Your task to perform on an android device: Search for lenovo thinkpad on target.com, select the first entry, add it to the cart, then select checkout. Image 0: 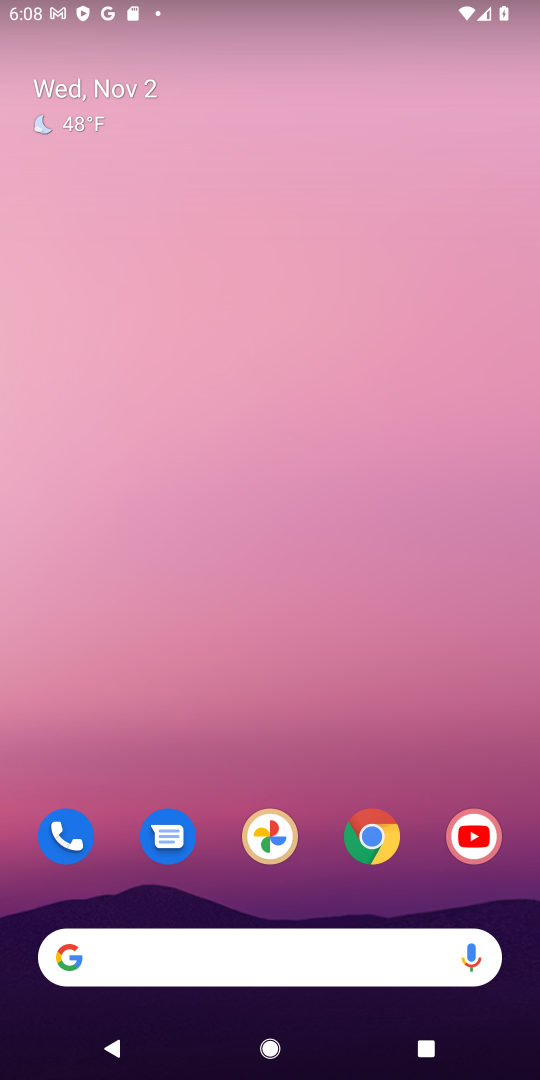
Step 0: drag from (295, 901) to (346, 307)
Your task to perform on an android device: Search for lenovo thinkpad on target.com, select the first entry, add it to the cart, then select checkout. Image 1: 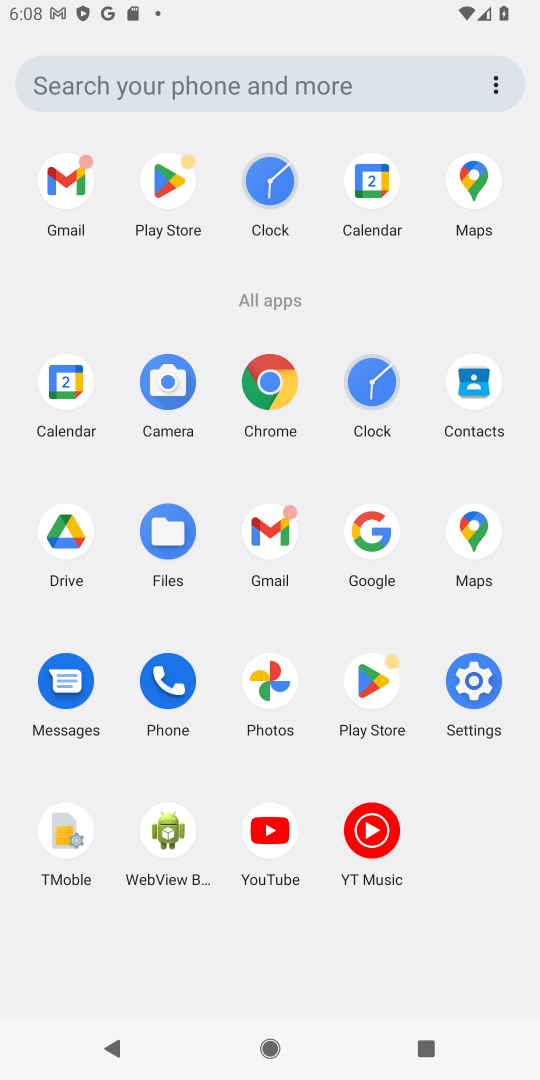
Step 1: click (372, 537)
Your task to perform on an android device: Search for lenovo thinkpad on target.com, select the first entry, add it to the cart, then select checkout. Image 2: 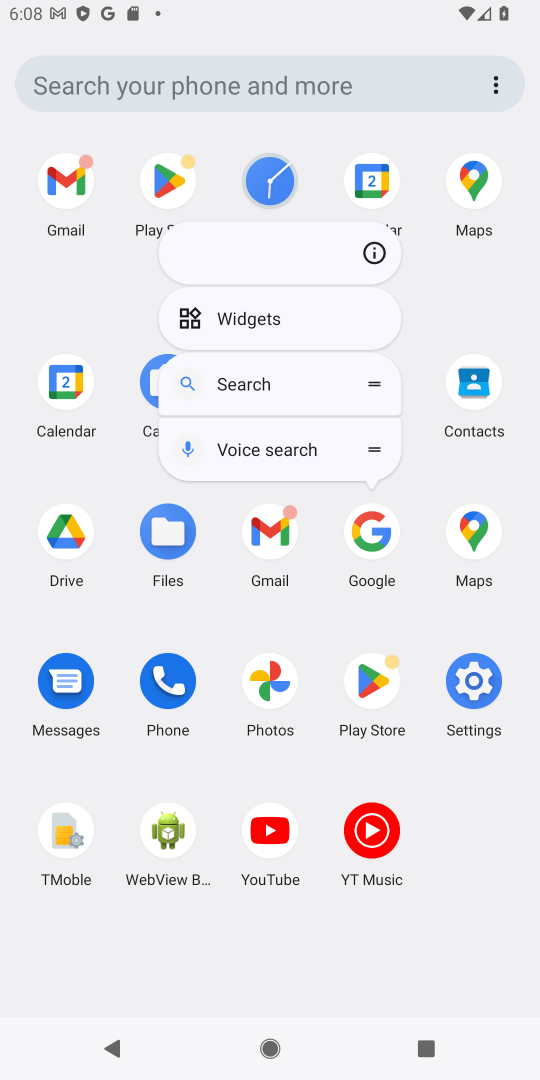
Step 2: click (353, 530)
Your task to perform on an android device: Search for lenovo thinkpad on target.com, select the first entry, add it to the cart, then select checkout. Image 3: 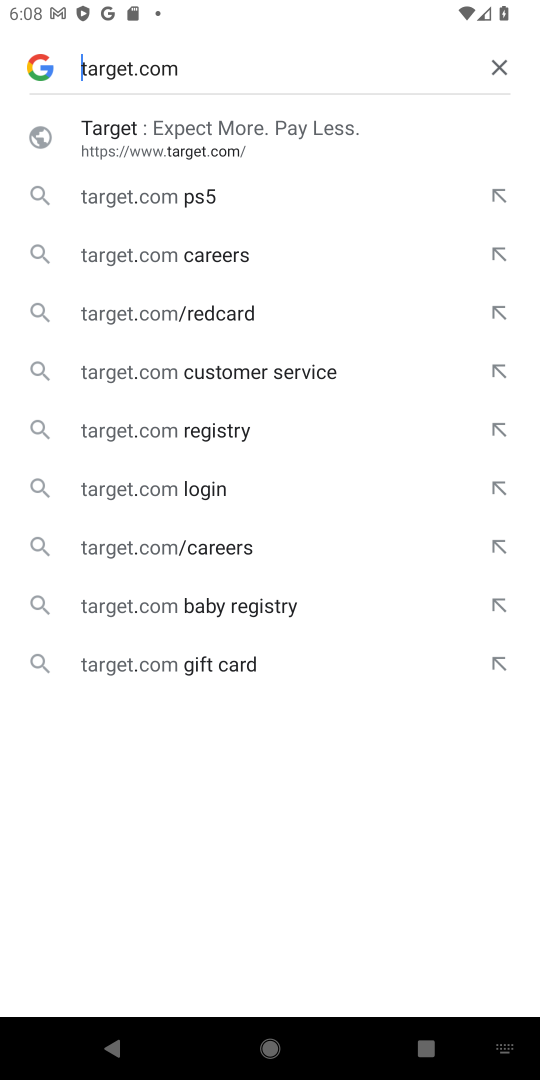
Step 3: click (169, 146)
Your task to perform on an android device: Search for lenovo thinkpad on target.com, select the first entry, add it to the cart, then select checkout. Image 4: 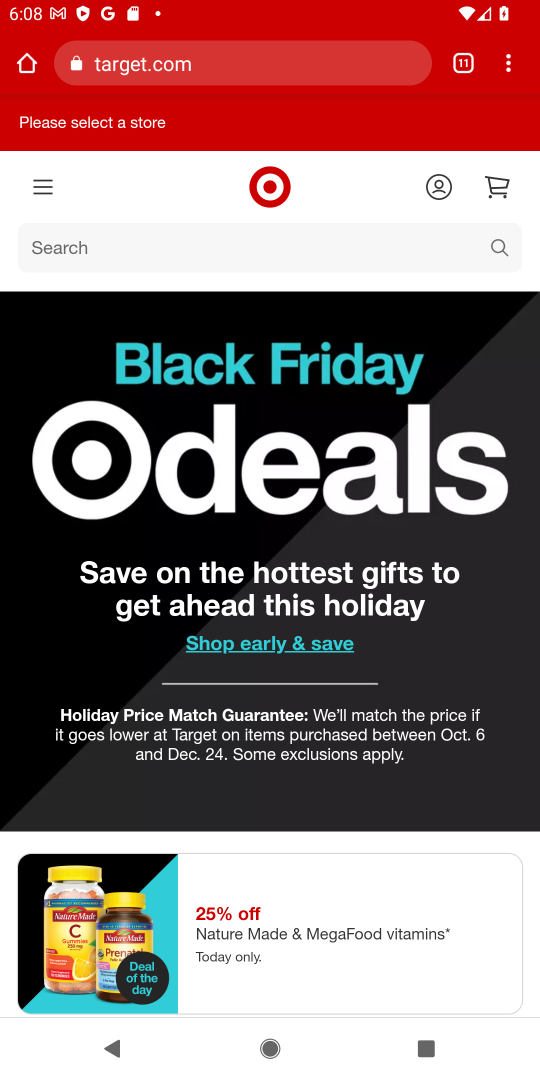
Step 4: click (192, 255)
Your task to perform on an android device: Search for lenovo thinkpad on target.com, select the first entry, add it to the cart, then select checkout. Image 5: 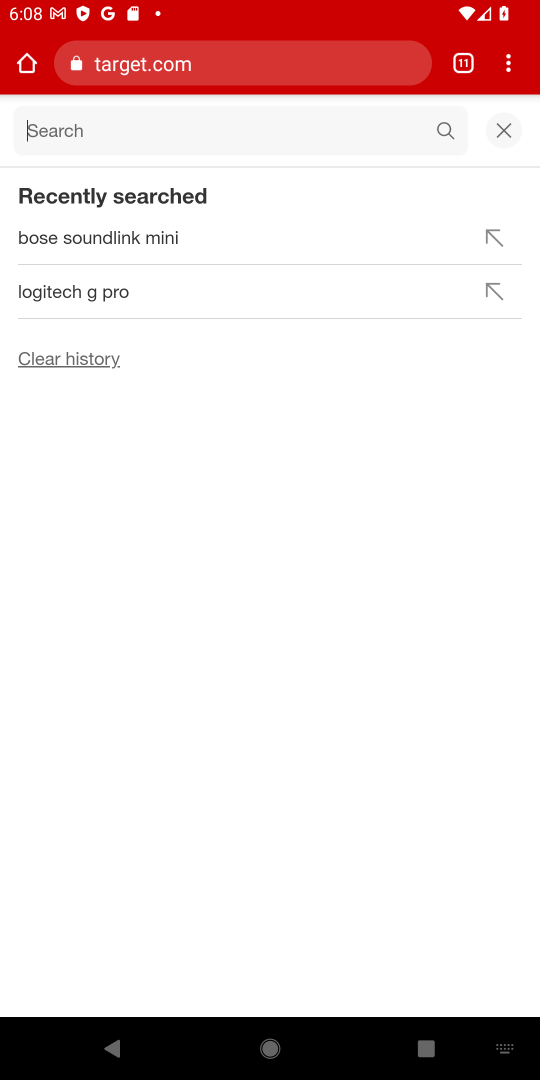
Step 5: type "lenovo thinkpad"
Your task to perform on an android device: Search for lenovo thinkpad on target.com, select the first entry, add it to the cart, then select checkout. Image 6: 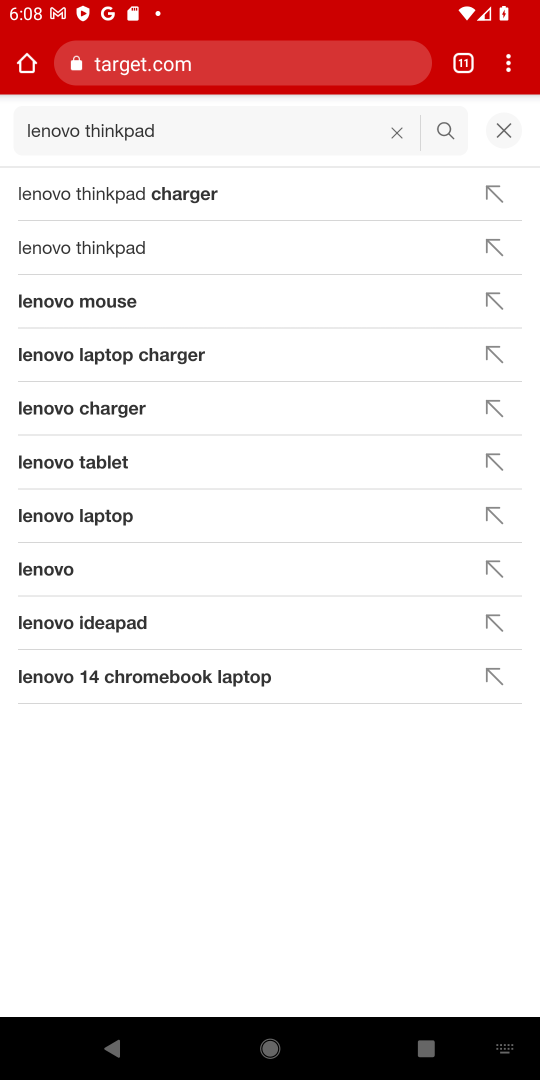
Step 6: click (168, 200)
Your task to perform on an android device: Search for lenovo thinkpad on target.com, select the first entry, add it to the cart, then select checkout. Image 7: 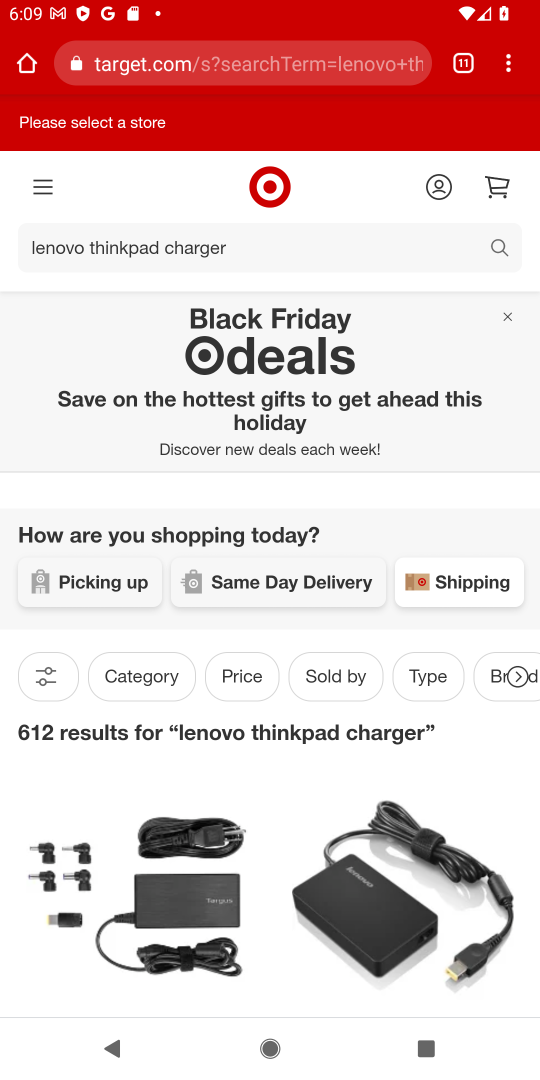
Step 7: drag from (258, 919) to (264, 408)
Your task to perform on an android device: Search for lenovo thinkpad on target.com, select the first entry, add it to the cart, then select checkout. Image 8: 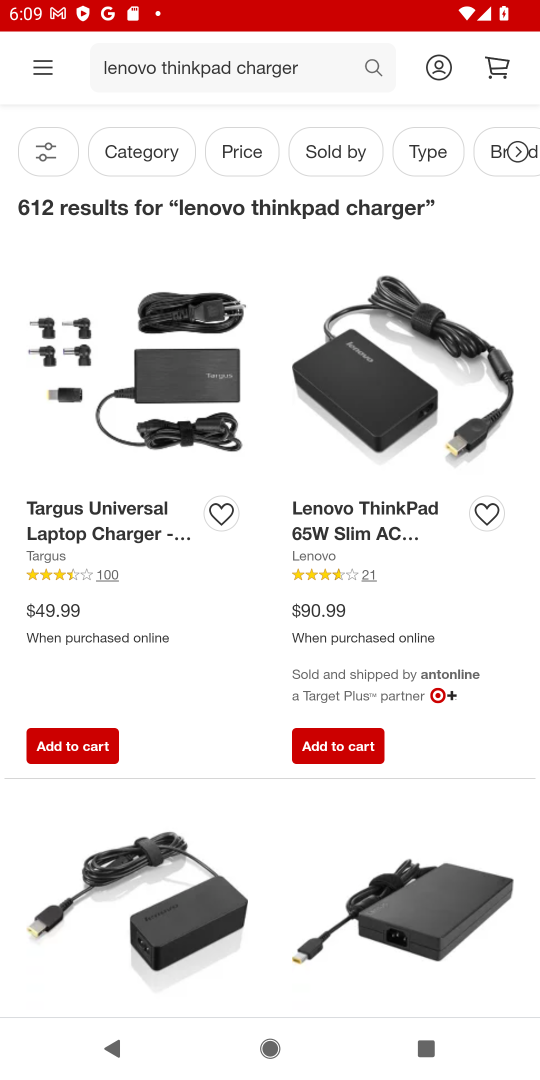
Step 8: click (70, 753)
Your task to perform on an android device: Search for lenovo thinkpad on target.com, select the first entry, add it to the cart, then select checkout. Image 9: 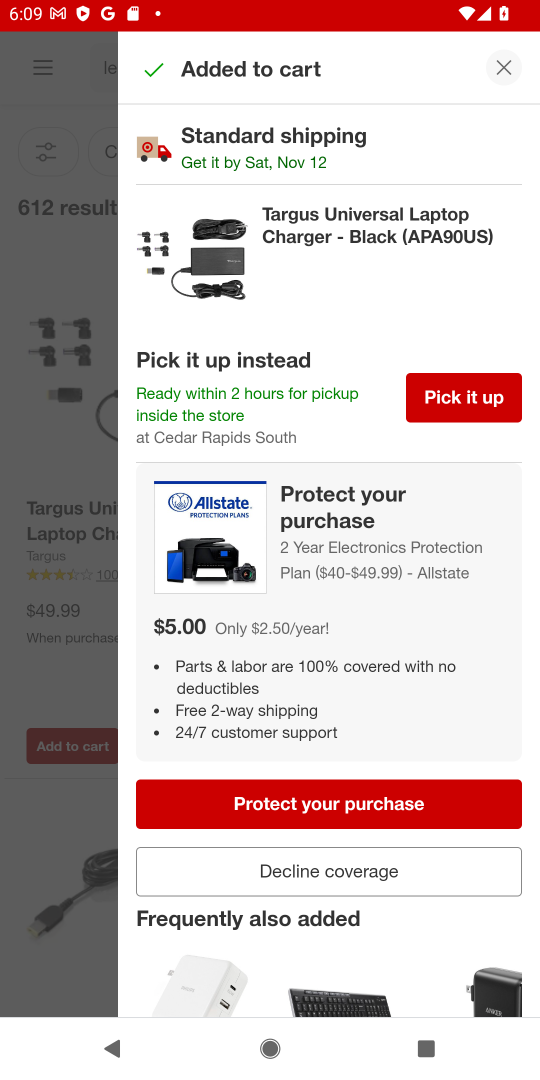
Step 9: task complete